Your task to perform on an android device: Open Reddit.com Image 0: 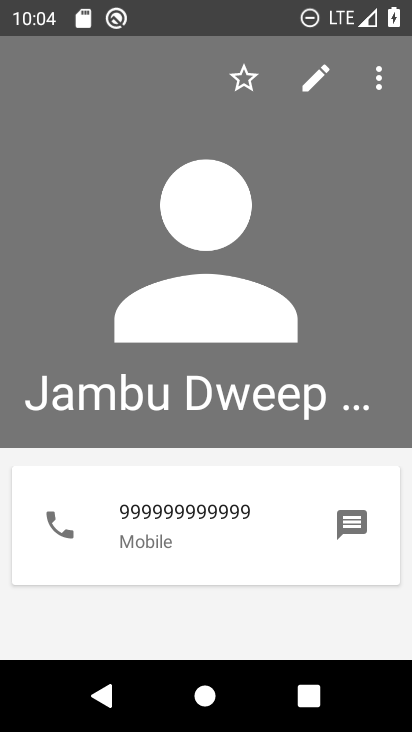
Step 0: press home button
Your task to perform on an android device: Open Reddit.com Image 1: 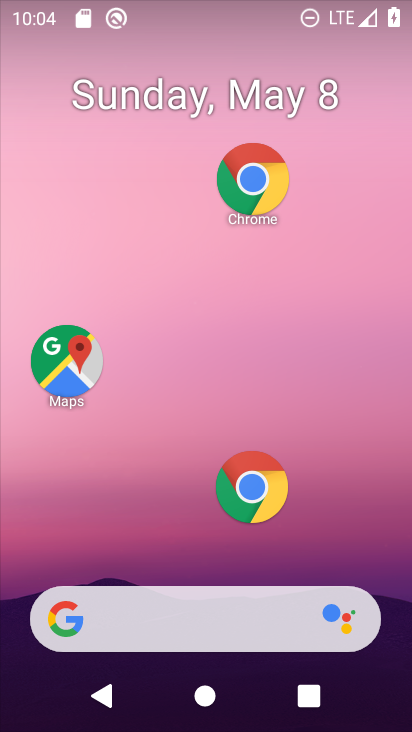
Step 1: click (207, 626)
Your task to perform on an android device: Open Reddit.com Image 2: 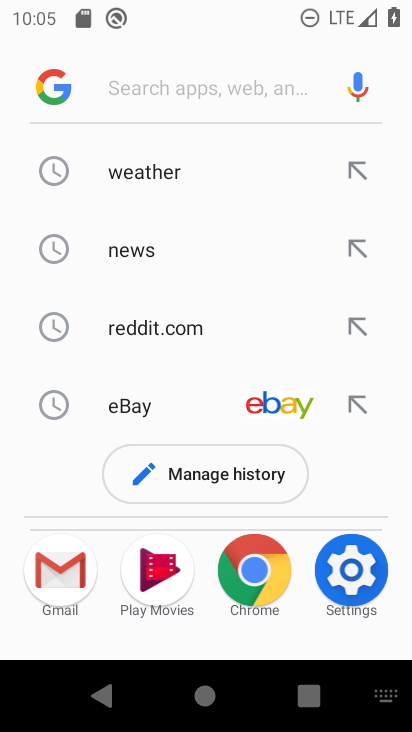
Step 2: type "reddit.com"
Your task to perform on an android device: Open Reddit.com Image 3: 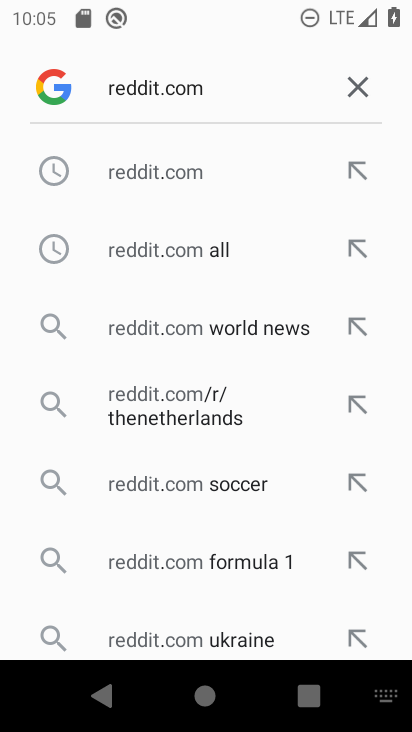
Step 3: click (149, 171)
Your task to perform on an android device: Open Reddit.com Image 4: 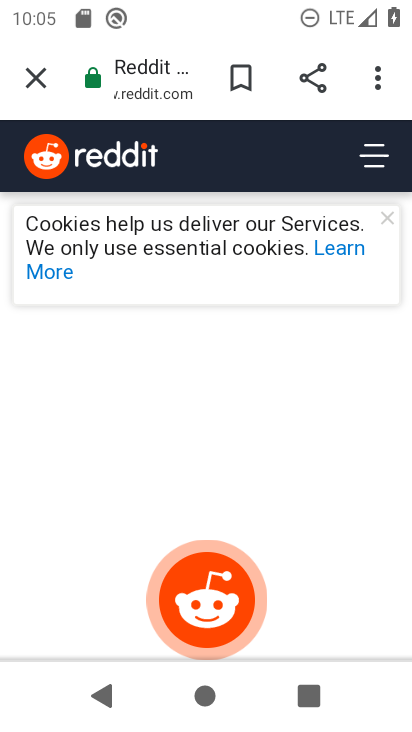
Step 4: task complete